Your task to perform on an android device: Open Google Image 0: 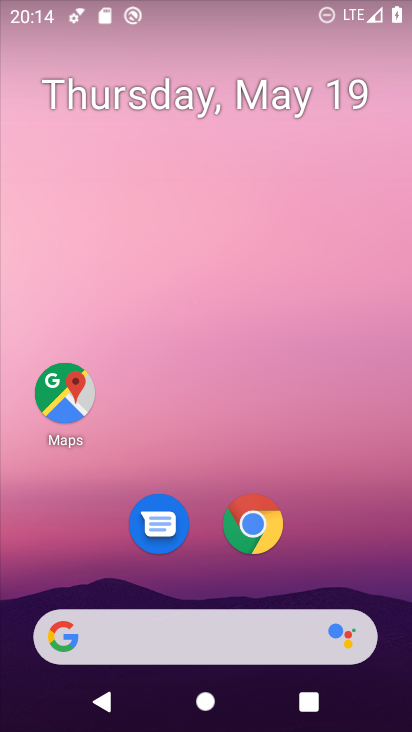
Step 0: click (187, 632)
Your task to perform on an android device: Open Google Image 1: 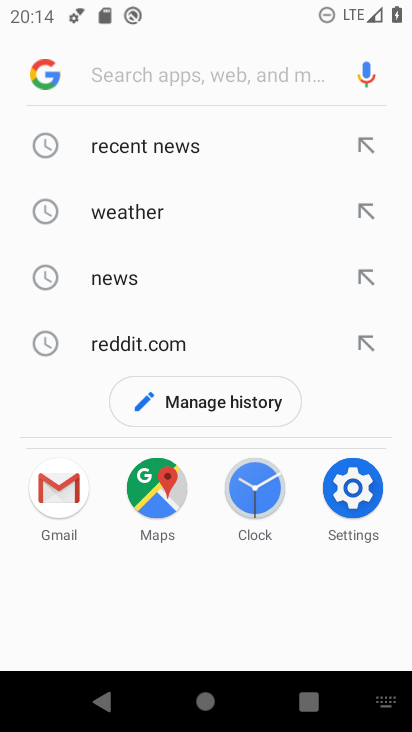
Step 1: click (40, 76)
Your task to perform on an android device: Open Google Image 2: 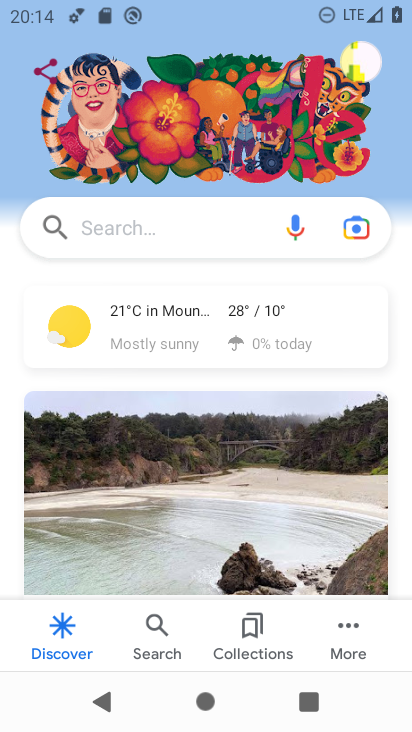
Step 2: task complete